Your task to perform on an android device: turn off airplane mode Image 0: 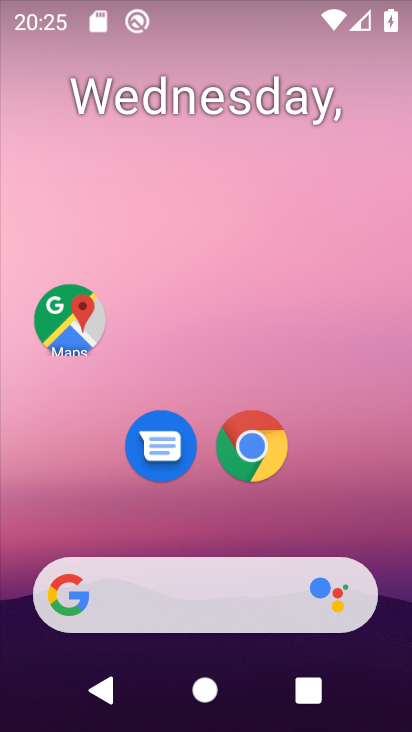
Step 0: drag from (149, 600) to (69, 227)
Your task to perform on an android device: turn off airplane mode Image 1: 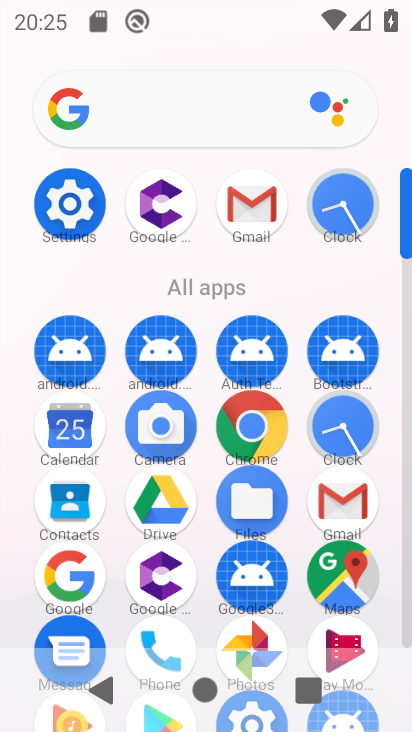
Step 1: click (81, 212)
Your task to perform on an android device: turn off airplane mode Image 2: 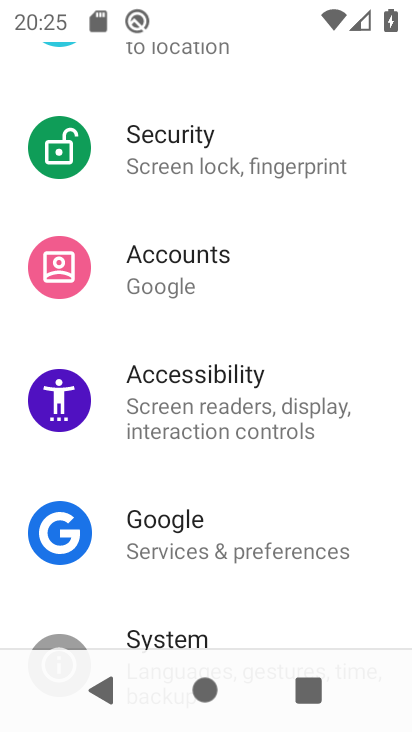
Step 2: drag from (201, 183) to (224, 582)
Your task to perform on an android device: turn off airplane mode Image 3: 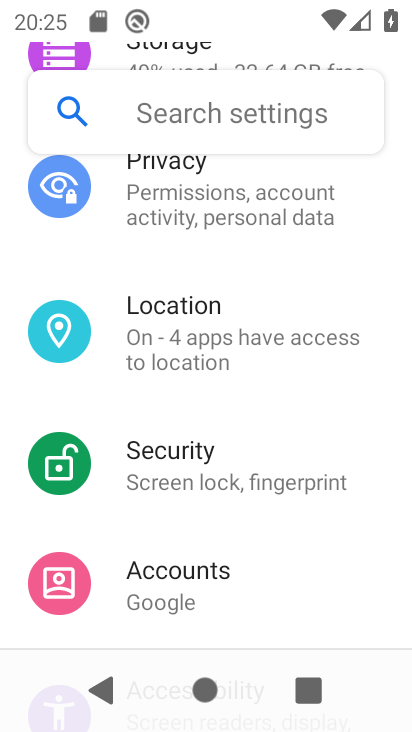
Step 3: drag from (143, 206) to (152, 714)
Your task to perform on an android device: turn off airplane mode Image 4: 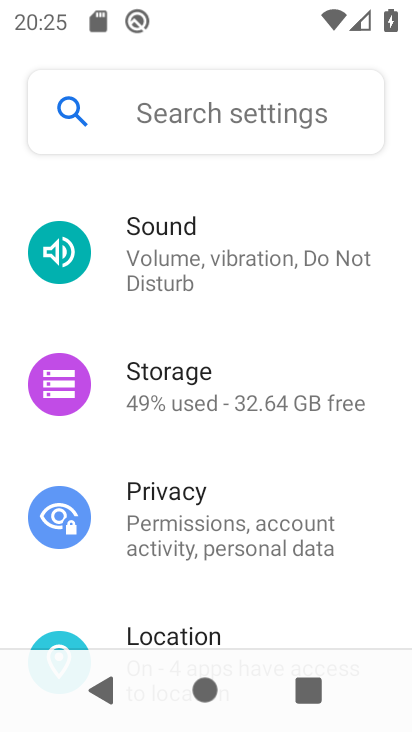
Step 4: drag from (217, 251) to (235, 710)
Your task to perform on an android device: turn off airplane mode Image 5: 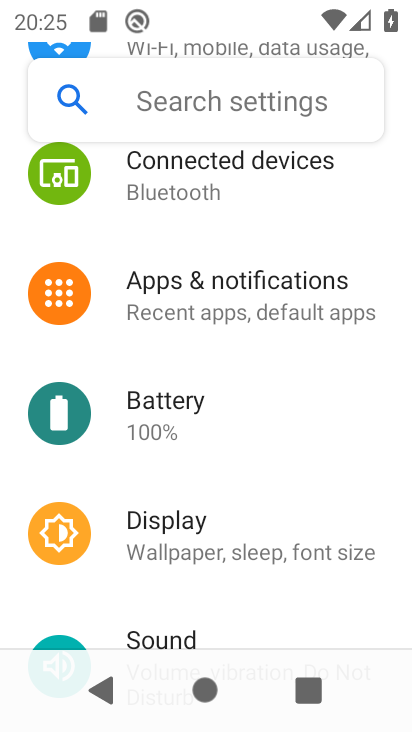
Step 5: drag from (201, 243) to (271, 697)
Your task to perform on an android device: turn off airplane mode Image 6: 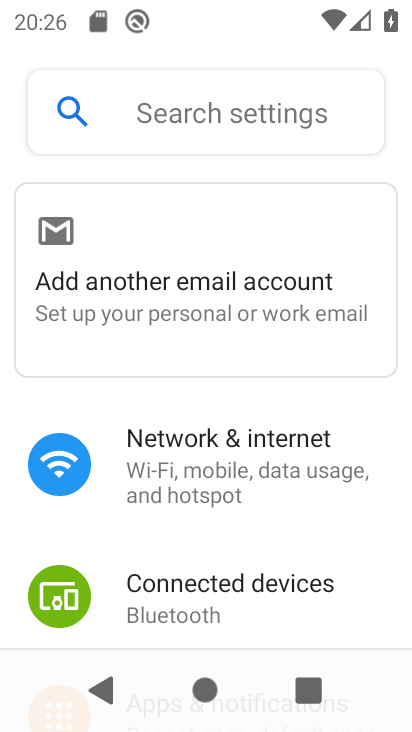
Step 6: click (188, 475)
Your task to perform on an android device: turn off airplane mode Image 7: 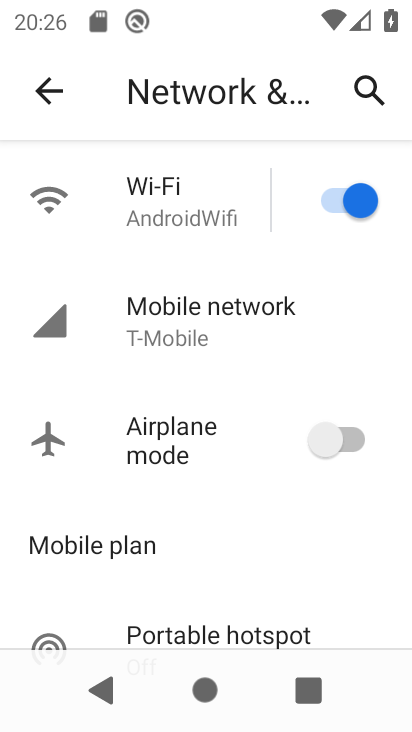
Step 7: task complete